Your task to perform on an android device: Open Google Chrome Image 0: 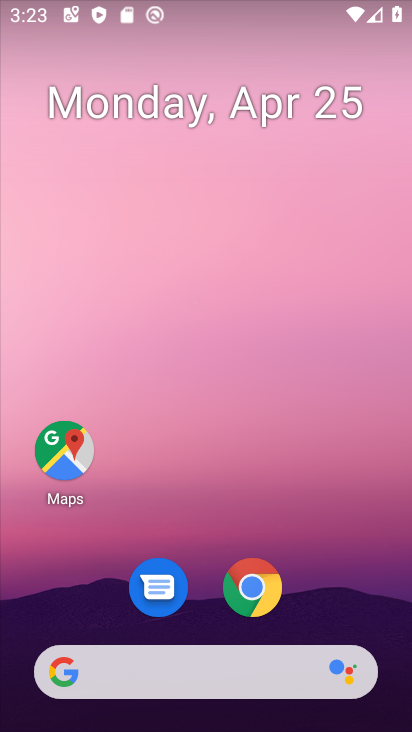
Step 0: click (260, 586)
Your task to perform on an android device: Open Google Chrome Image 1: 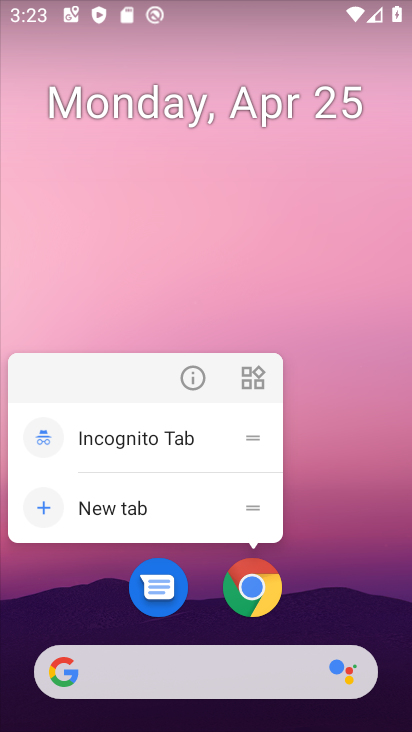
Step 1: click (253, 586)
Your task to perform on an android device: Open Google Chrome Image 2: 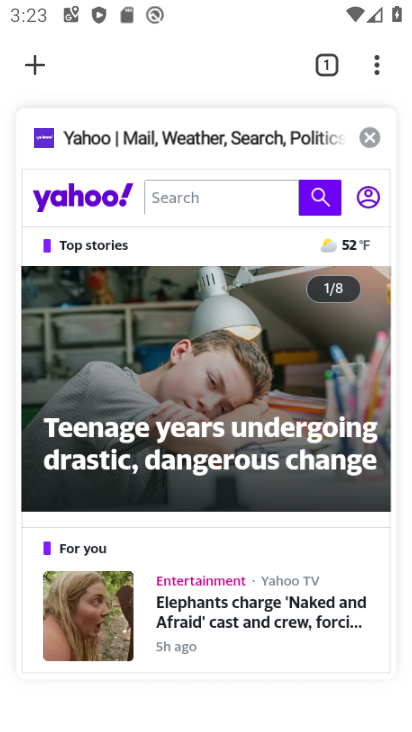
Step 2: task complete